Your task to perform on an android device: Open privacy settings Image 0: 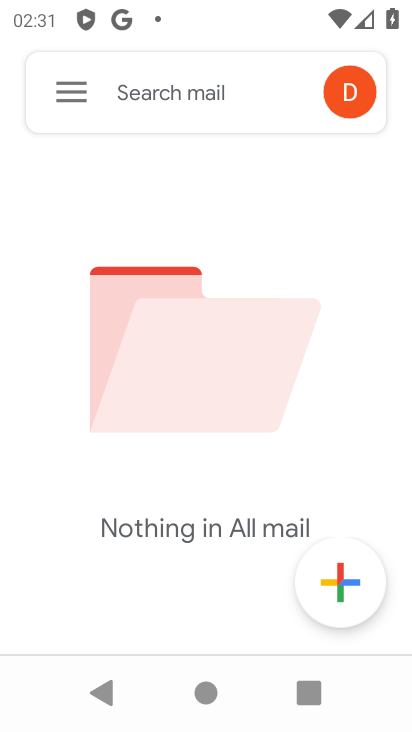
Step 0: press home button
Your task to perform on an android device: Open privacy settings Image 1: 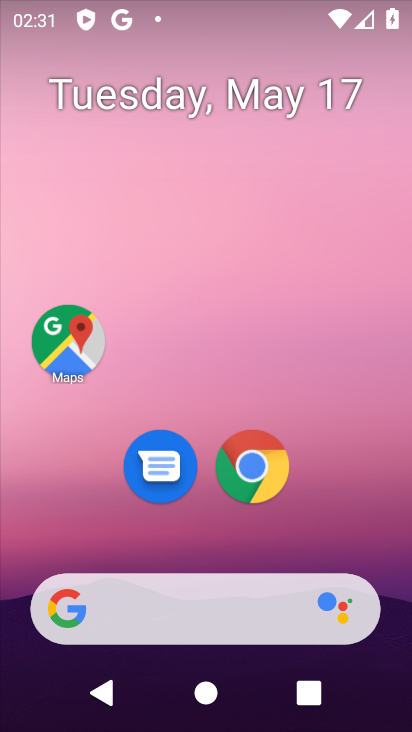
Step 1: drag from (328, 490) to (316, 72)
Your task to perform on an android device: Open privacy settings Image 2: 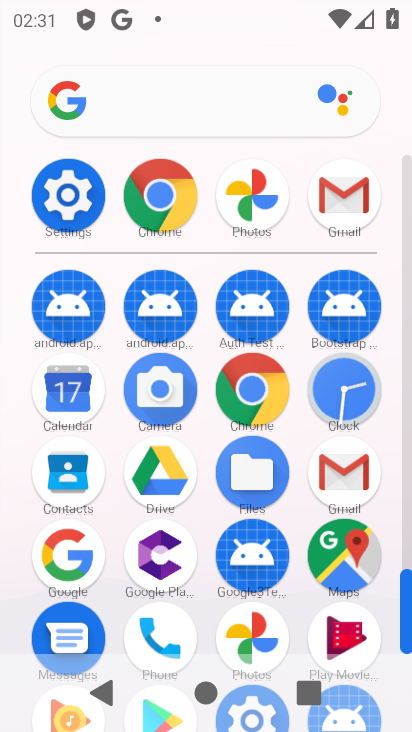
Step 2: click (81, 209)
Your task to perform on an android device: Open privacy settings Image 3: 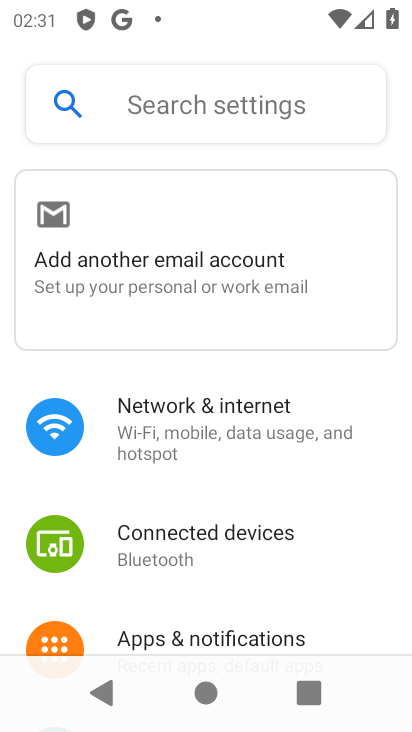
Step 3: drag from (197, 597) to (290, 233)
Your task to perform on an android device: Open privacy settings Image 4: 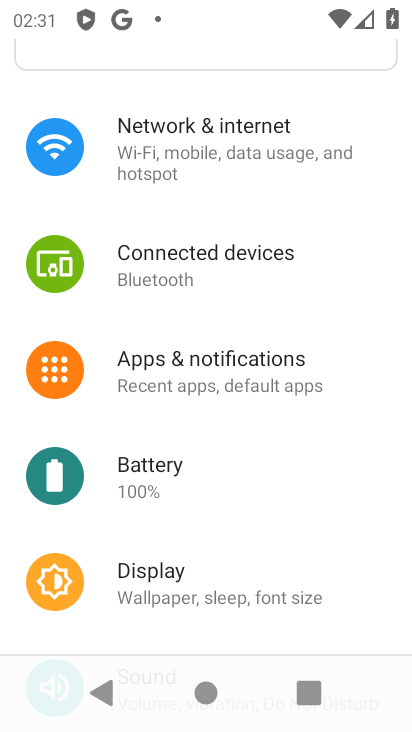
Step 4: drag from (189, 529) to (212, 150)
Your task to perform on an android device: Open privacy settings Image 5: 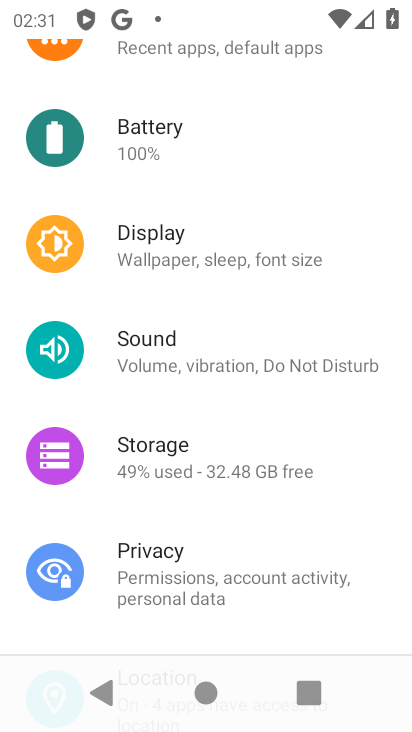
Step 5: drag from (174, 459) to (237, 264)
Your task to perform on an android device: Open privacy settings Image 6: 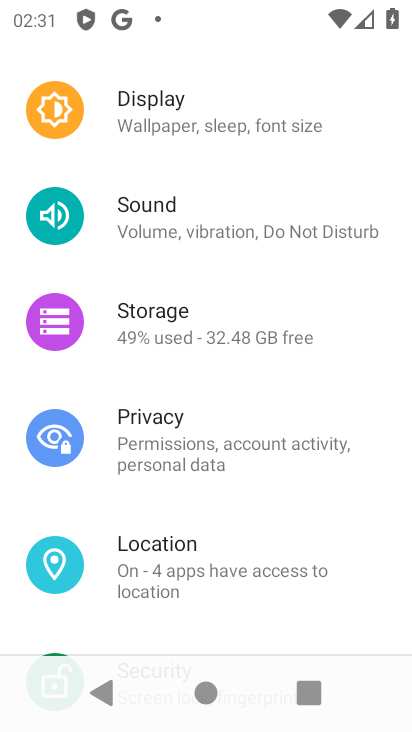
Step 6: click (166, 438)
Your task to perform on an android device: Open privacy settings Image 7: 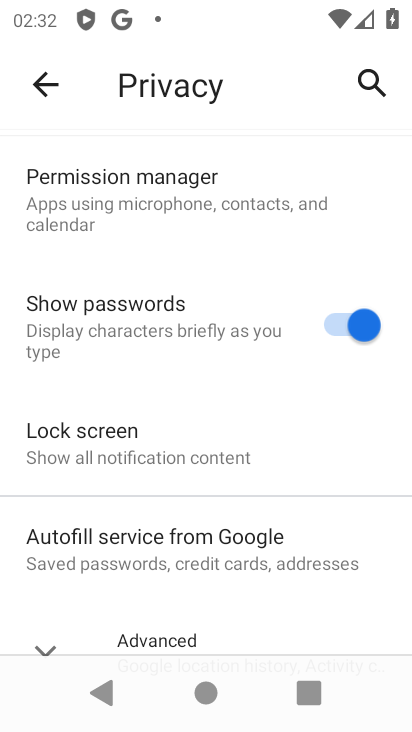
Step 7: task complete